Your task to perform on an android device: Go to Yahoo.com Image 0: 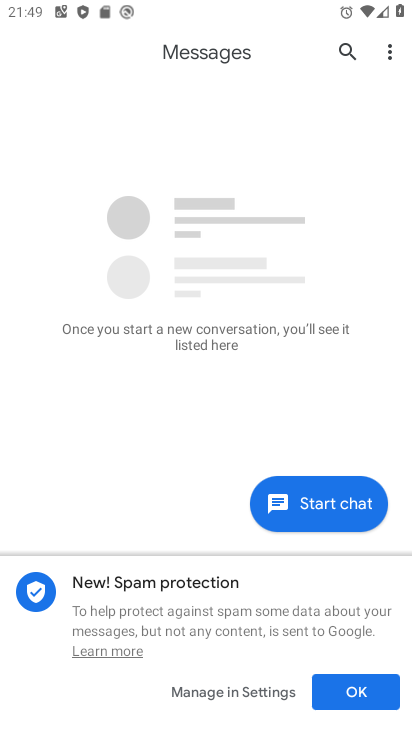
Step 0: press home button
Your task to perform on an android device: Go to Yahoo.com Image 1: 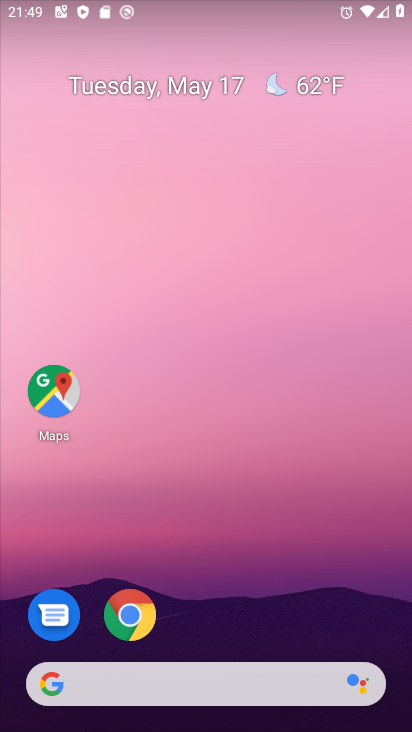
Step 1: click (123, 626)
Your task to perform on an android device: Go to Yahoo.com Image 2: 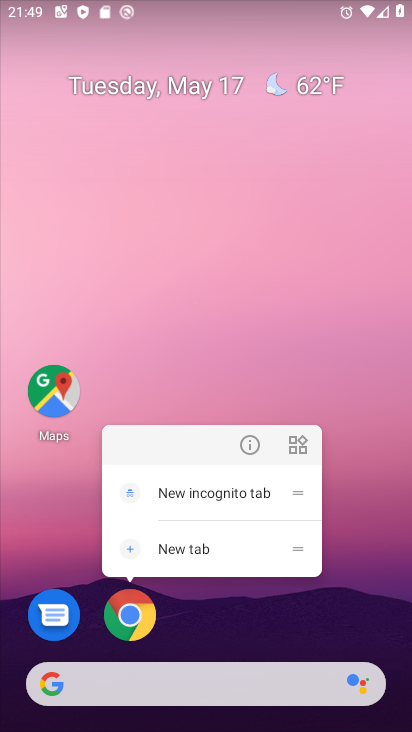
Step 2: click (138, 638)
Your task to perform on an android device: Go to Yahoo.com Image 3: 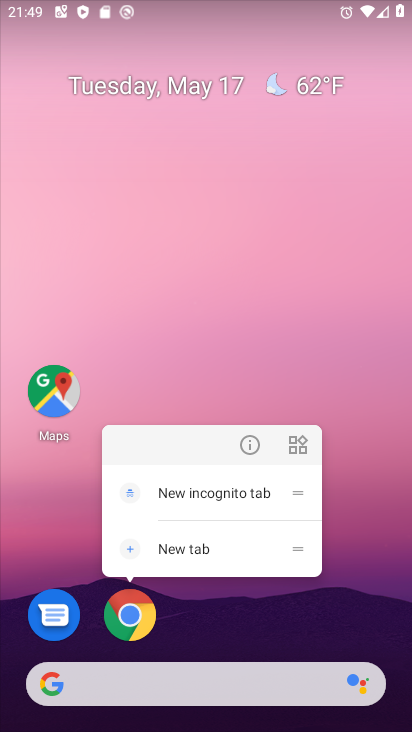
Step 3: click (124, 622)
Your task to perform on an android device: Go to Yahoo.com Image 4: 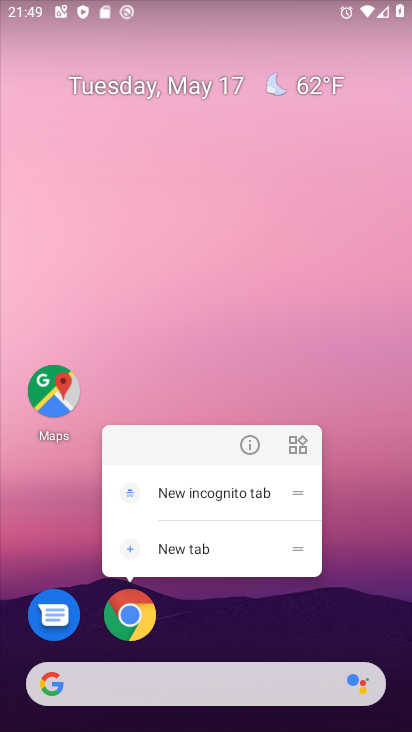
Step 4: click (116, 614)
Your task to perform on an android device: Go to Yahoo.com Image 5: 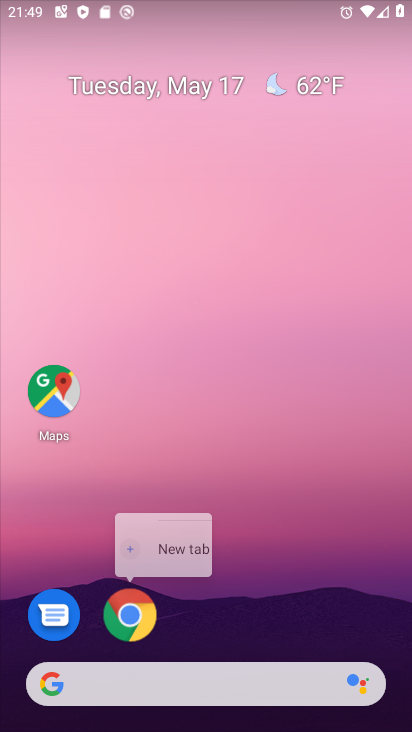
Step 5: click (116, 614)
Your task to perform on an android device: Go to Yahoo.com Image 6: 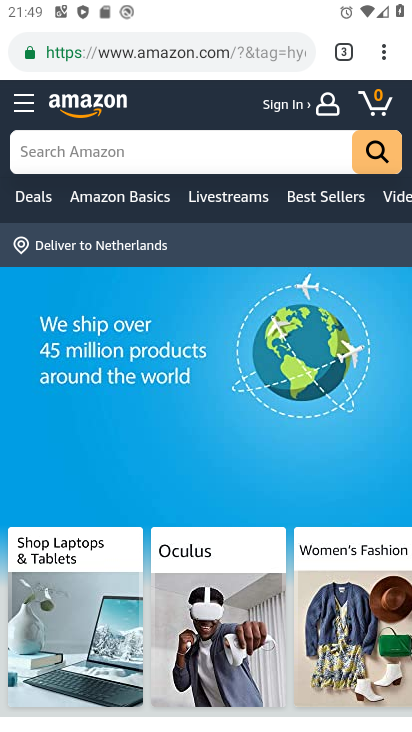
Step 6: click (119, 55)
Your task to perform on an android device: Go to Yahoo.com Image 7: 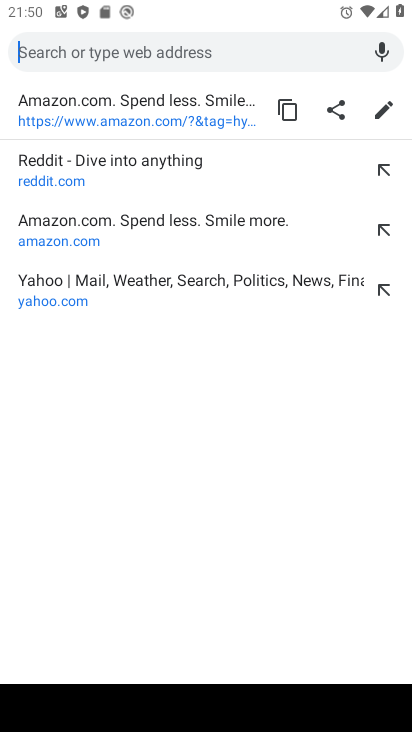
Step 7: type " Yahoo.com "
Your task to perform on an android device: Go to Yahoo.com Image 8: 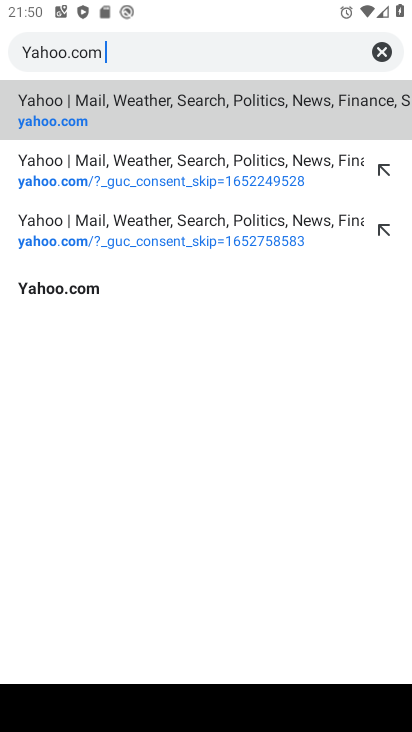
Step 8: click (198, 98)
Your task to perform on an android device: Go to Yahoo.com Image 9: 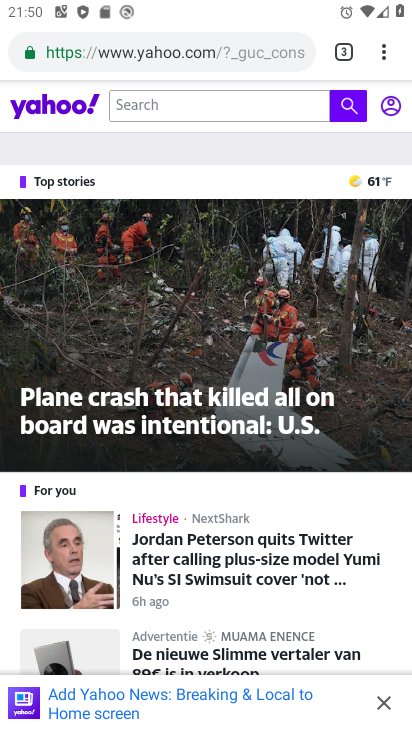
Step 9: task complete